Your task to perform on an android device: open a bookmark in the chrome app Image 0: 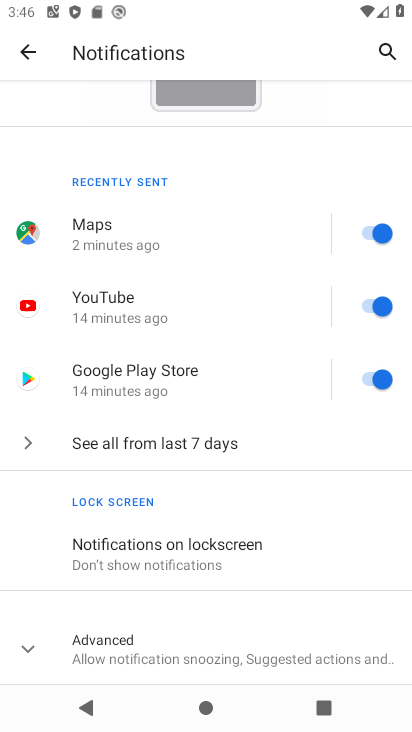
Step 0: press back button
Your task to perform on an android device: open a bookmark in the chrome app Image 1: 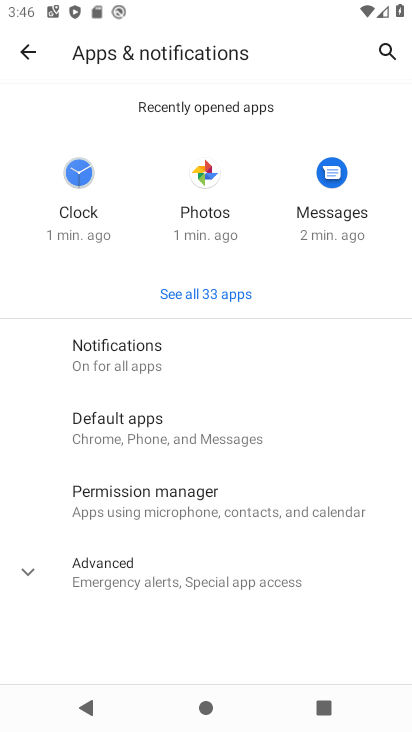
Step 1: press home button
Your task to perform on an android device: open a bookmark in the chrome app Image 2: 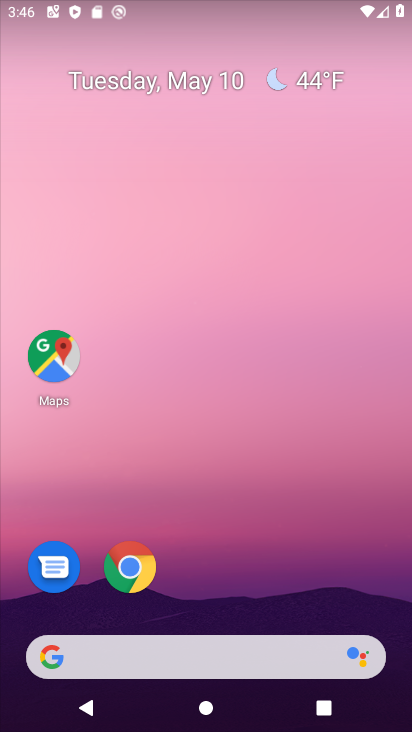
Step 2: click (128, 565)
Your task to perform on an android device: open a bookmark in the chrome app Image 3: 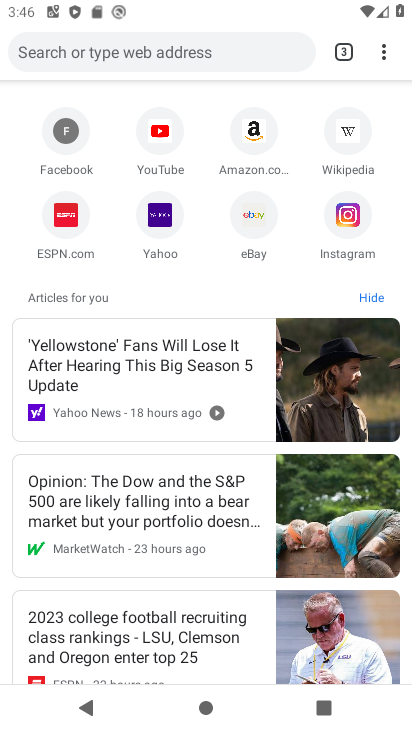
Step 3: click (383, 52)
Your task to perform on an android device: open a bookmark in the chrome app Image 4: 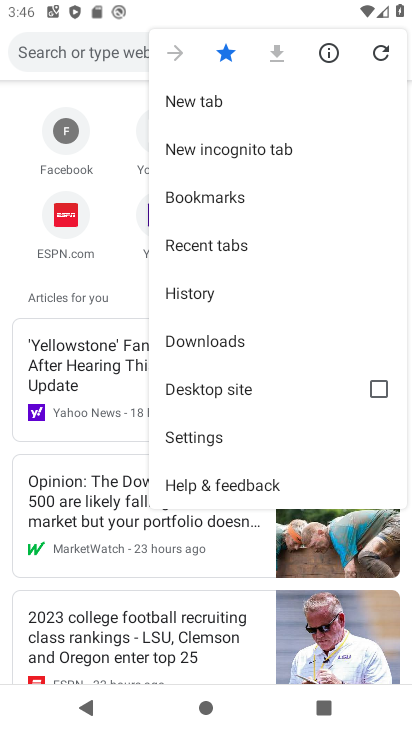
Step 4: click (229, 196)
Your task to perform on an android device: open a bookmark in the chrome app Image 5: 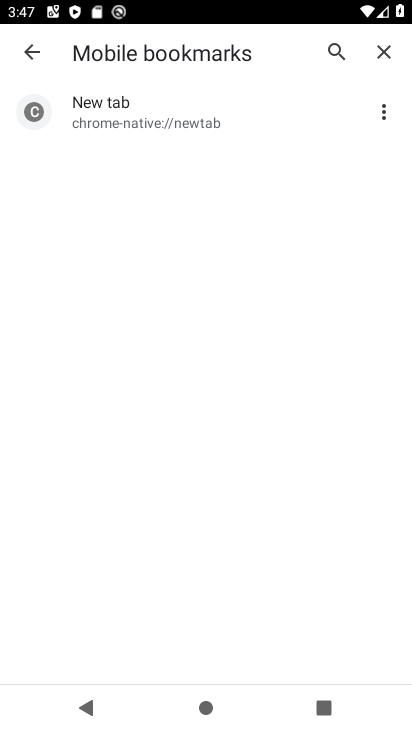
Step 5: task complete